Your task to perform on an android device: turn notification dots off Image 0: 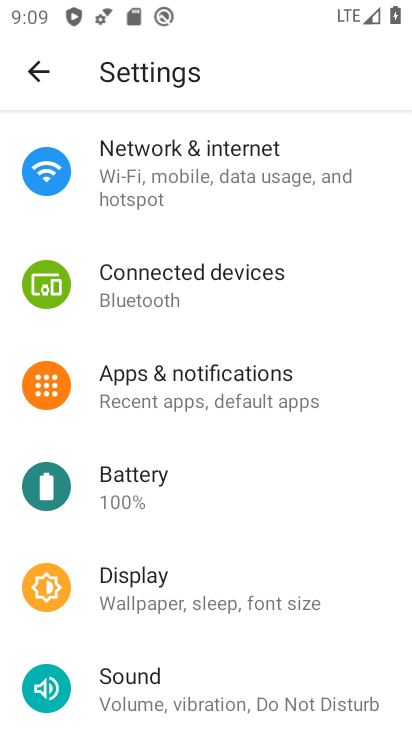
Step 0: drag from (271, 578) to (292, 476)
Your task to perform on an android device: turn notification dots off Image 1: 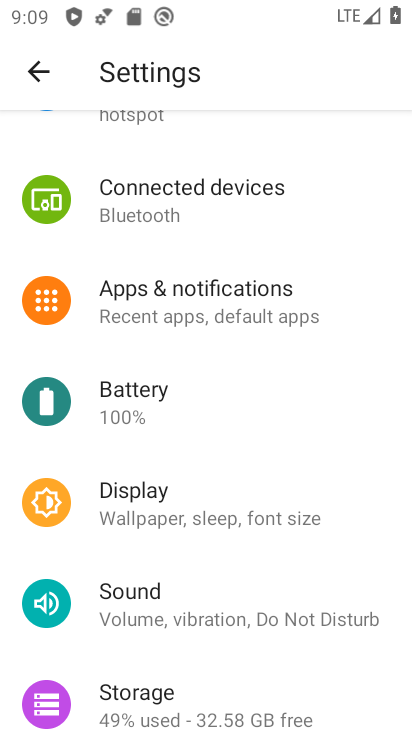
Step 1: click (344, 310)
Your task to perform on an android device: turn notification dots off Image 2: 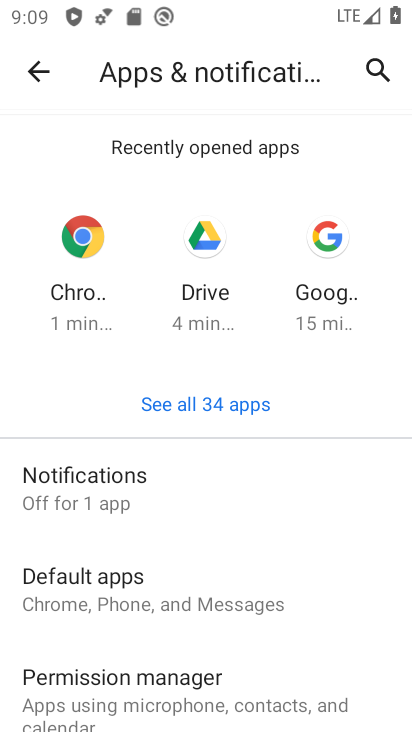
Step 2: click (158, 499)
Your task to perform on an android device: turn notification dots off Image 3: 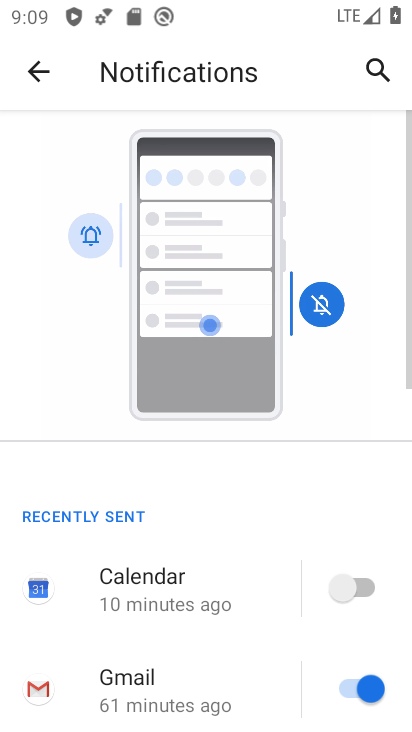
Step 3: drag from (147, 609) to (182, 442)
Your task to perform on an android device: turn notification dots off Image 4: 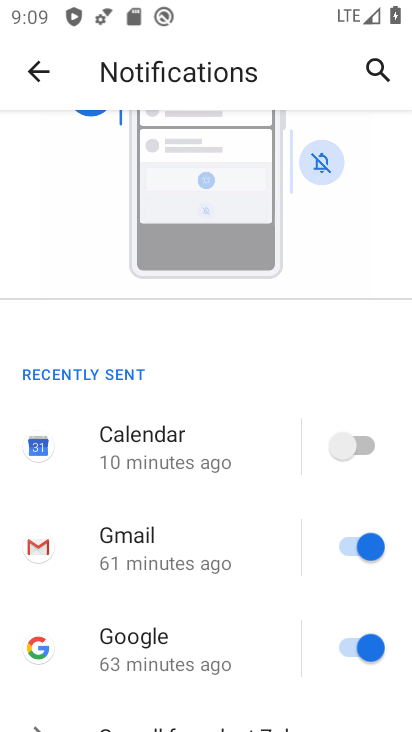
Step 4: drag from (182, 527) to (208, 305)
Your task to perform on an android device: turn notification dots off Image 5: 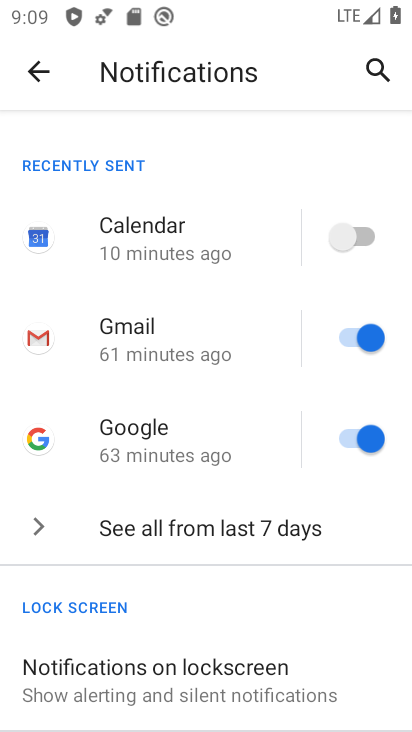
Step 5: drag from (173, 564) to (194, 423)
Your task to perform on an android device: turn notification dots off Image 6: 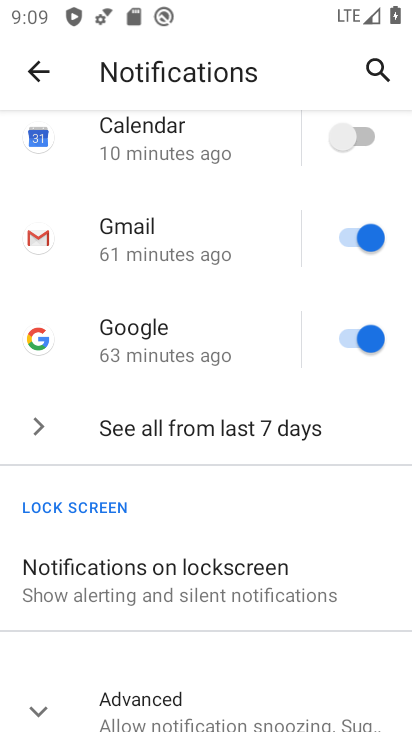
Step 6: drag from (183, 611) to (192, 316)
Your task to perform on an android device: turn notification dots off Image 7: 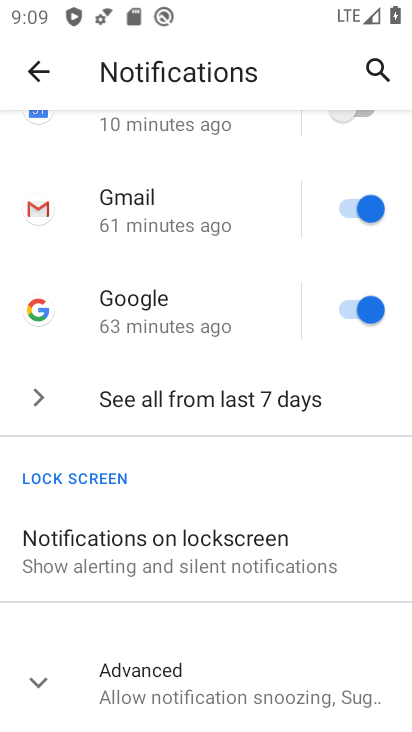
Step 7: click (157, 697)
Your task to perform on an android device: turn notification dots off Image 8: 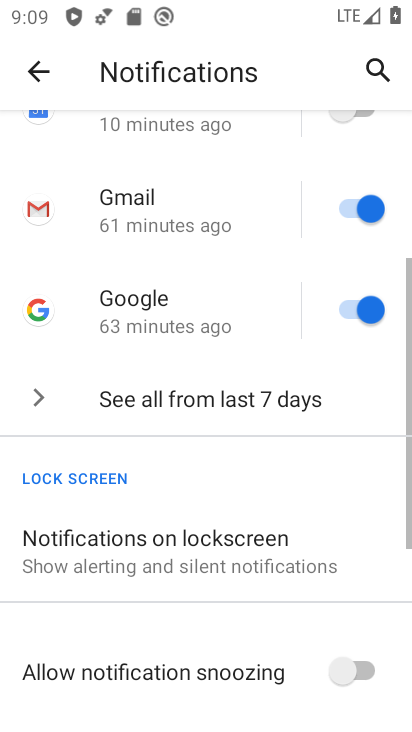
Step 8: drag from (158, 697) to (194, 449)
Your task to perform on an android device: turn notification dots off Image 9: 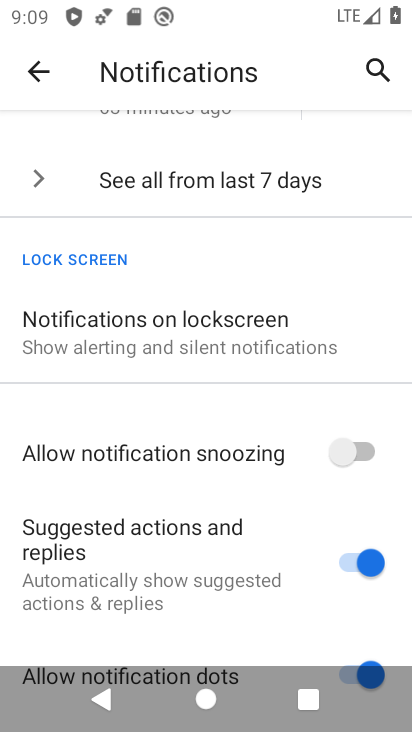
Step 9: drag from (183, 542) to (201, 295)
Your task to perform on an android device: turn notification dots off Image 10: 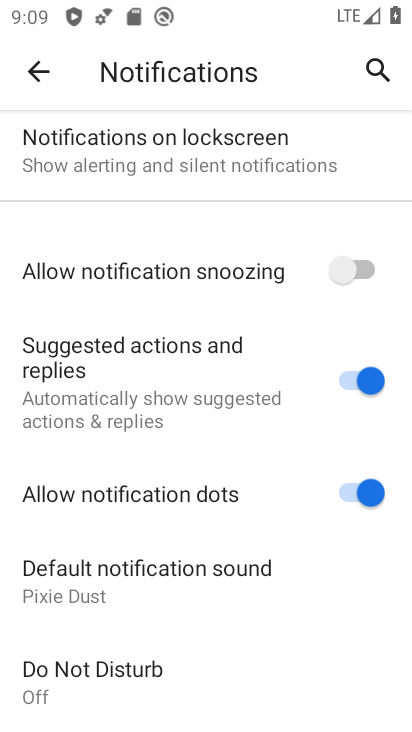
Step 10: click (359, 492)
Your task to perform on an android device: turn notification dots off Image 11: 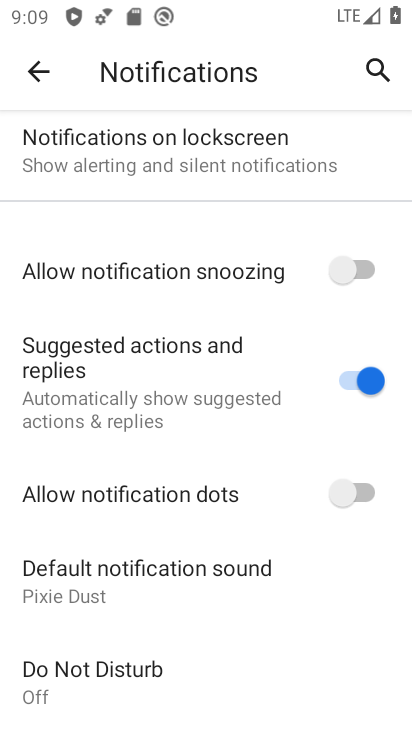
Step 11: task complete